Your task to perform on an android device: What is the news today? Image 0: 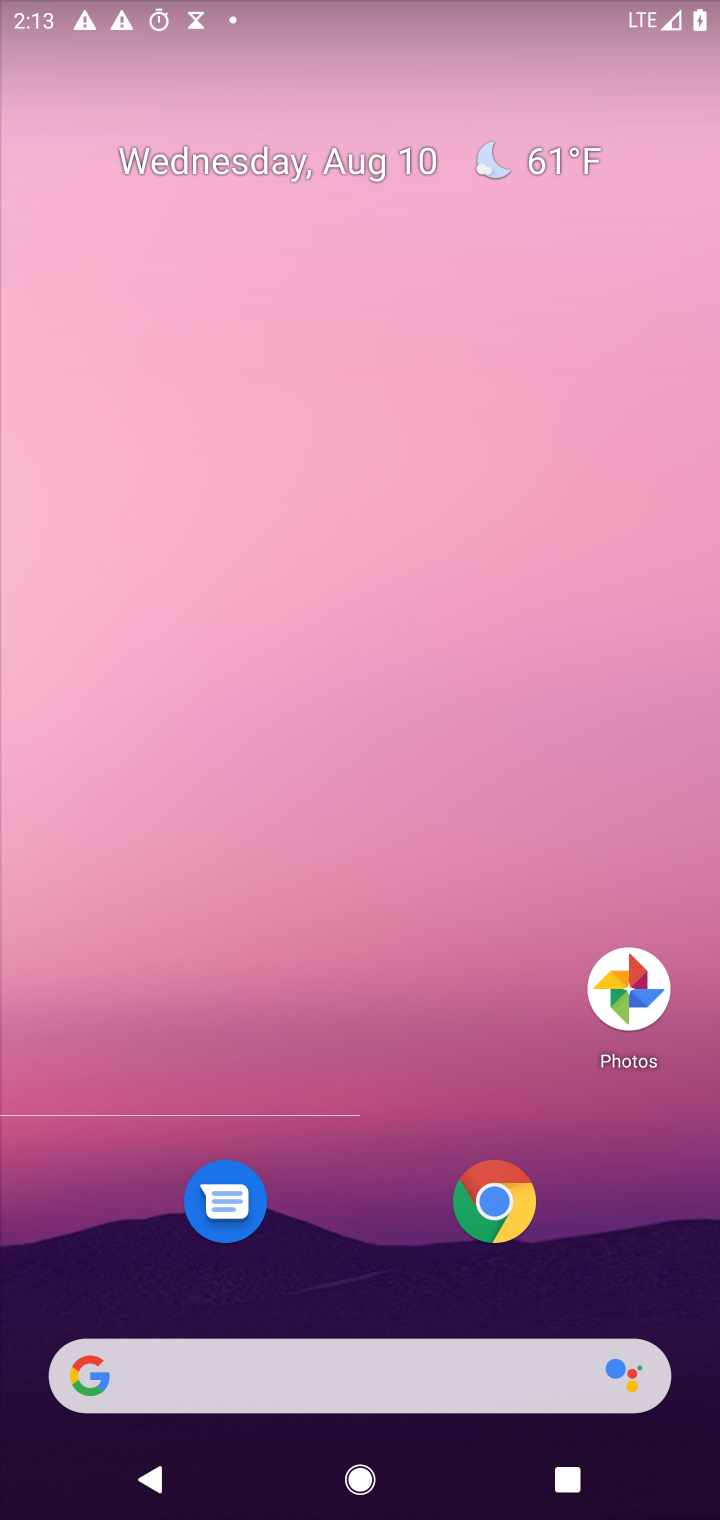
Step 0: drag from (404, 1250) to (341, 194)
Your task to perform on an android device: What is the news today? Image 1: 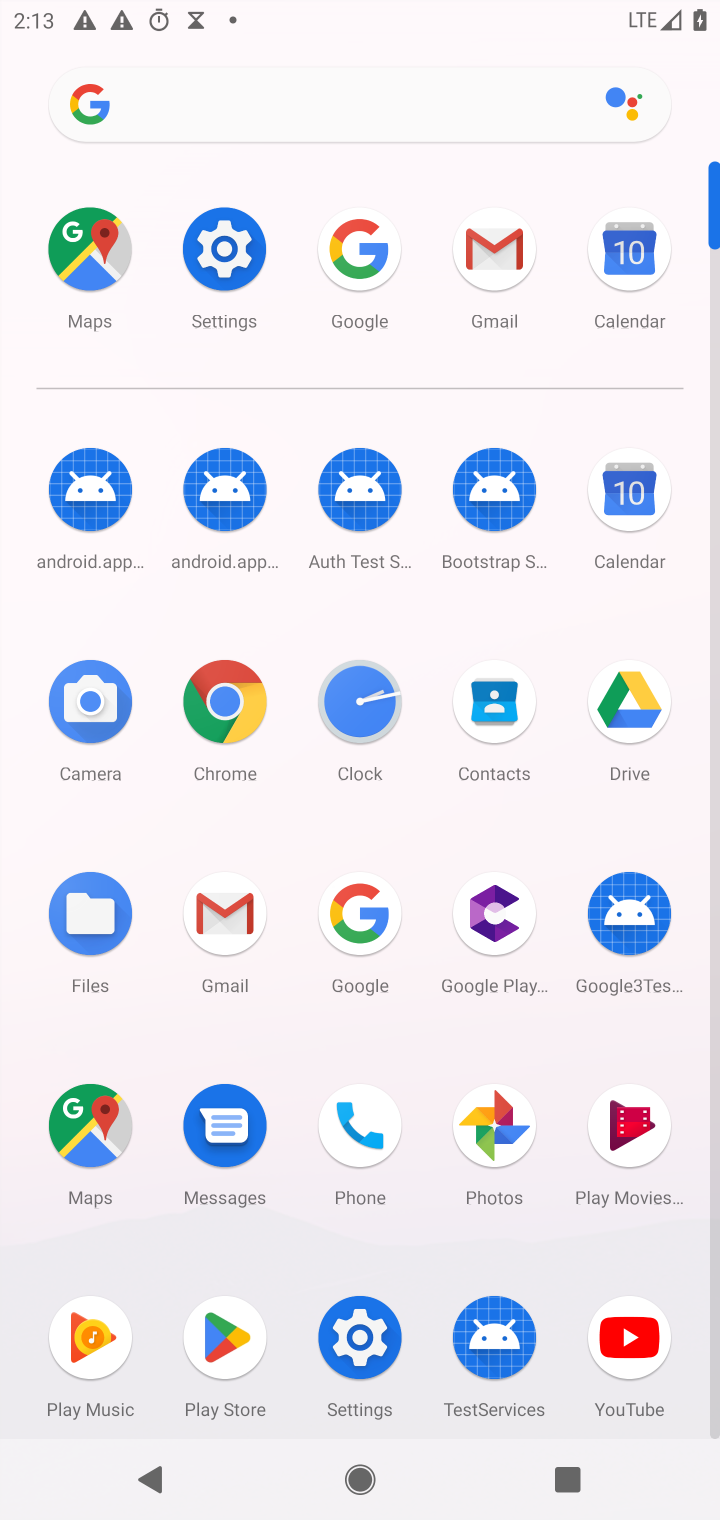
Step 1: click (369, 901)
Your task to perform on an android device: What is the news today? Image 2: 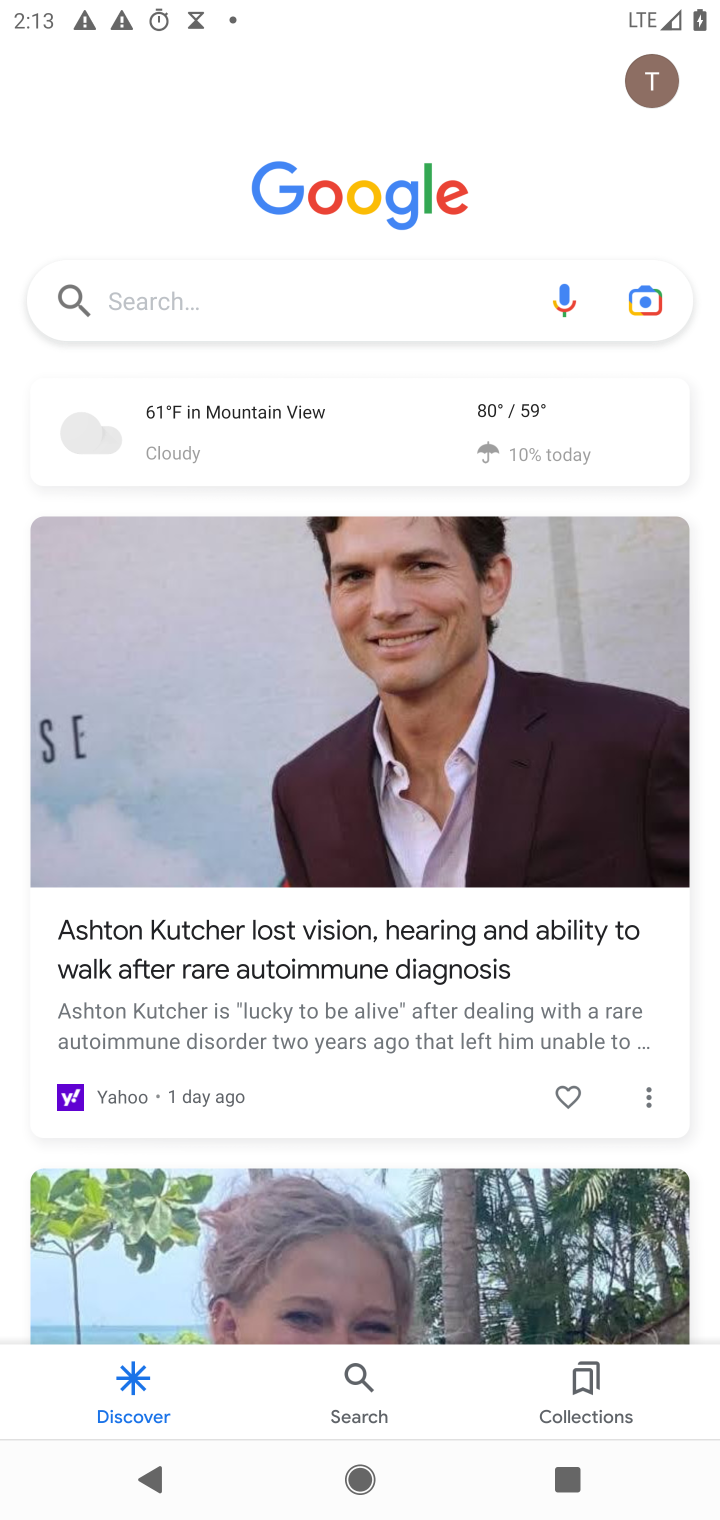
Step 2: click (283, 317)
Your task to perform on an android device: What is the news today? Image 3: 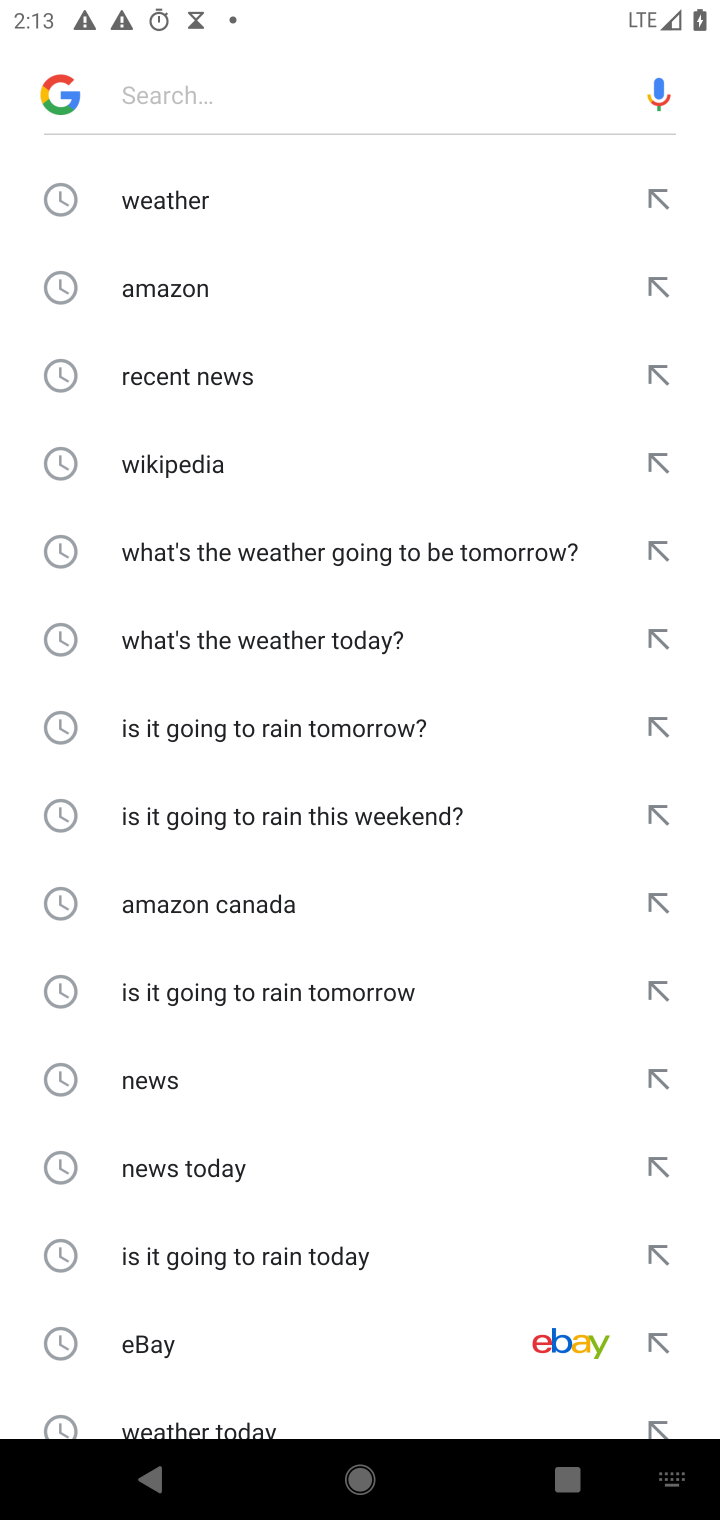
Step 3: click (190, 1178)
Your task to perform on an android device: What is the news today? Image 4: 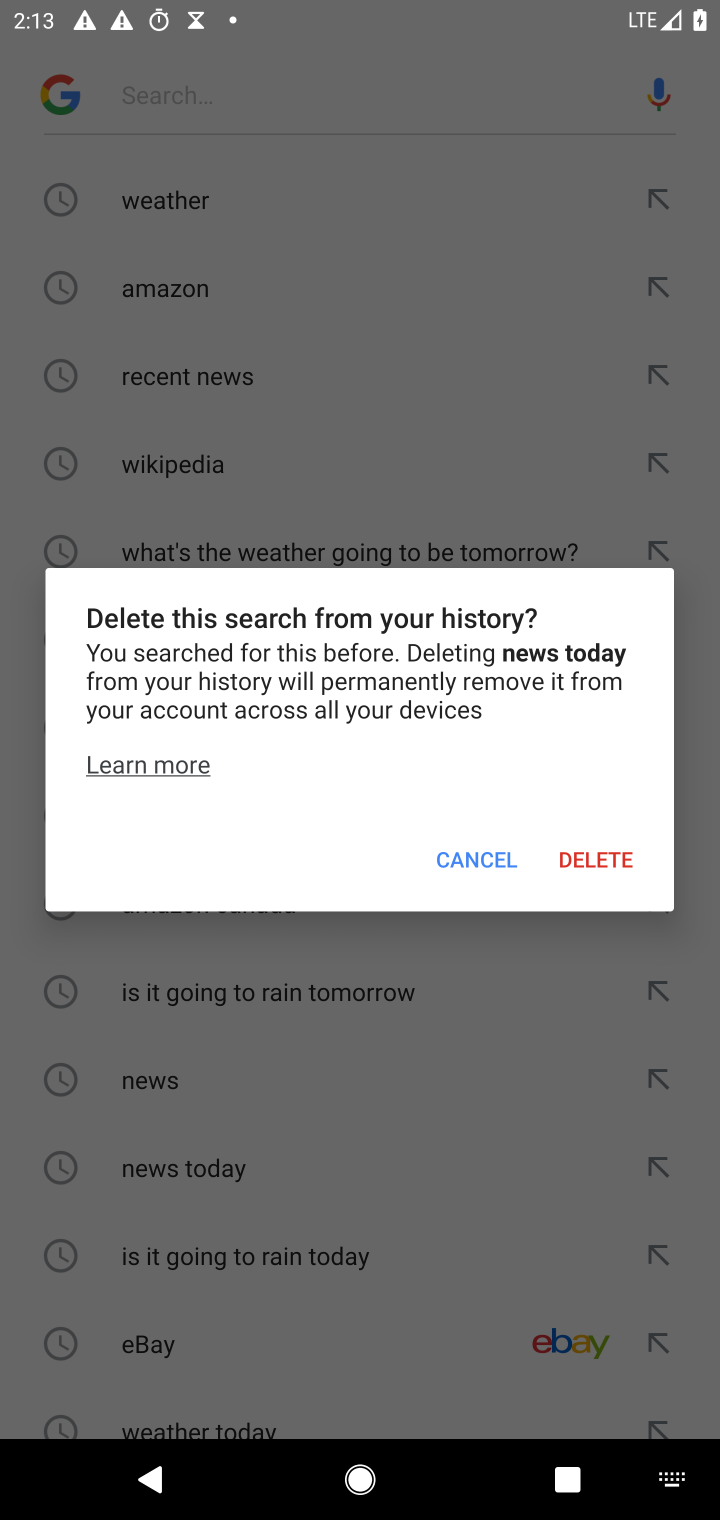
Step 4: click (474, 871)
Your task to perform on an android device: What is the news today? Image 5: 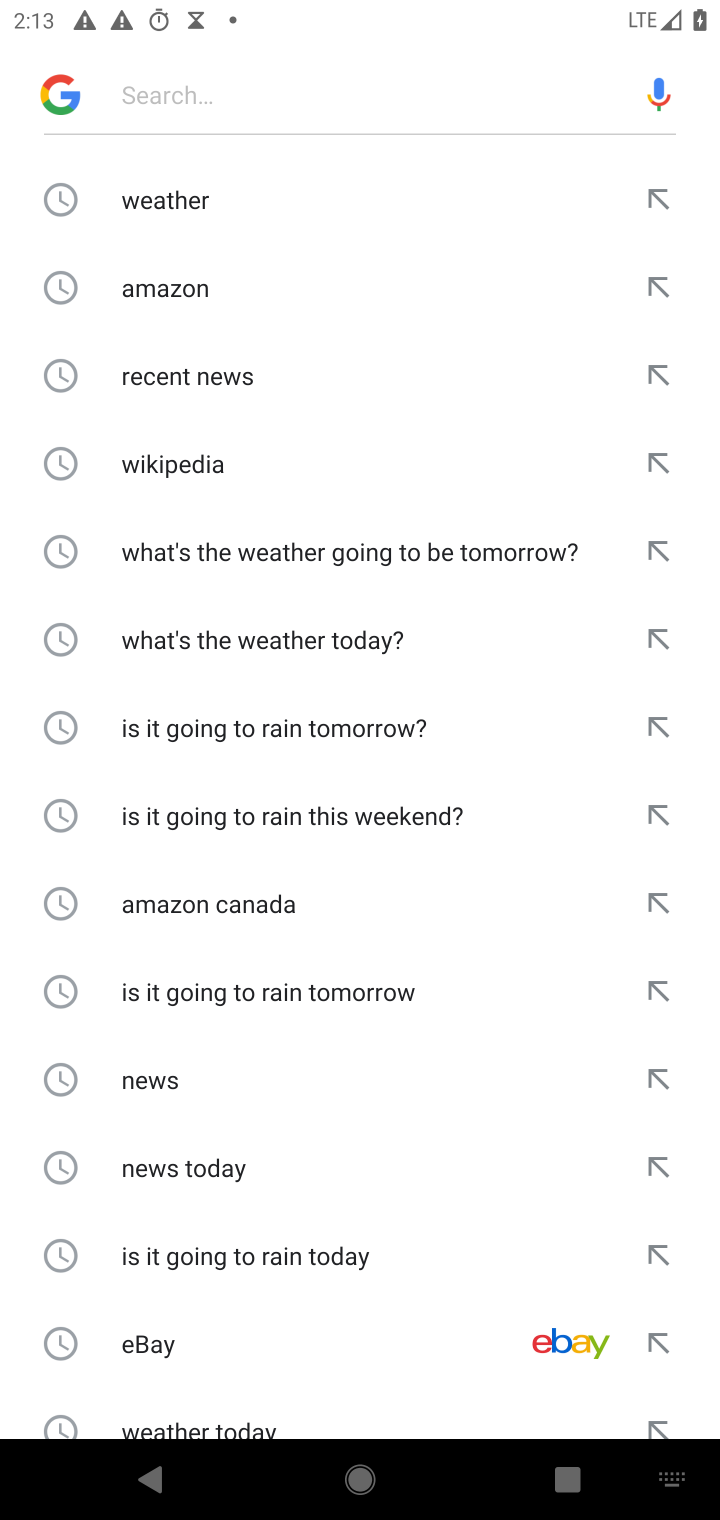
Step 5: type "news today?"
Your task to perform on an android device: What is the news today? Image 6: 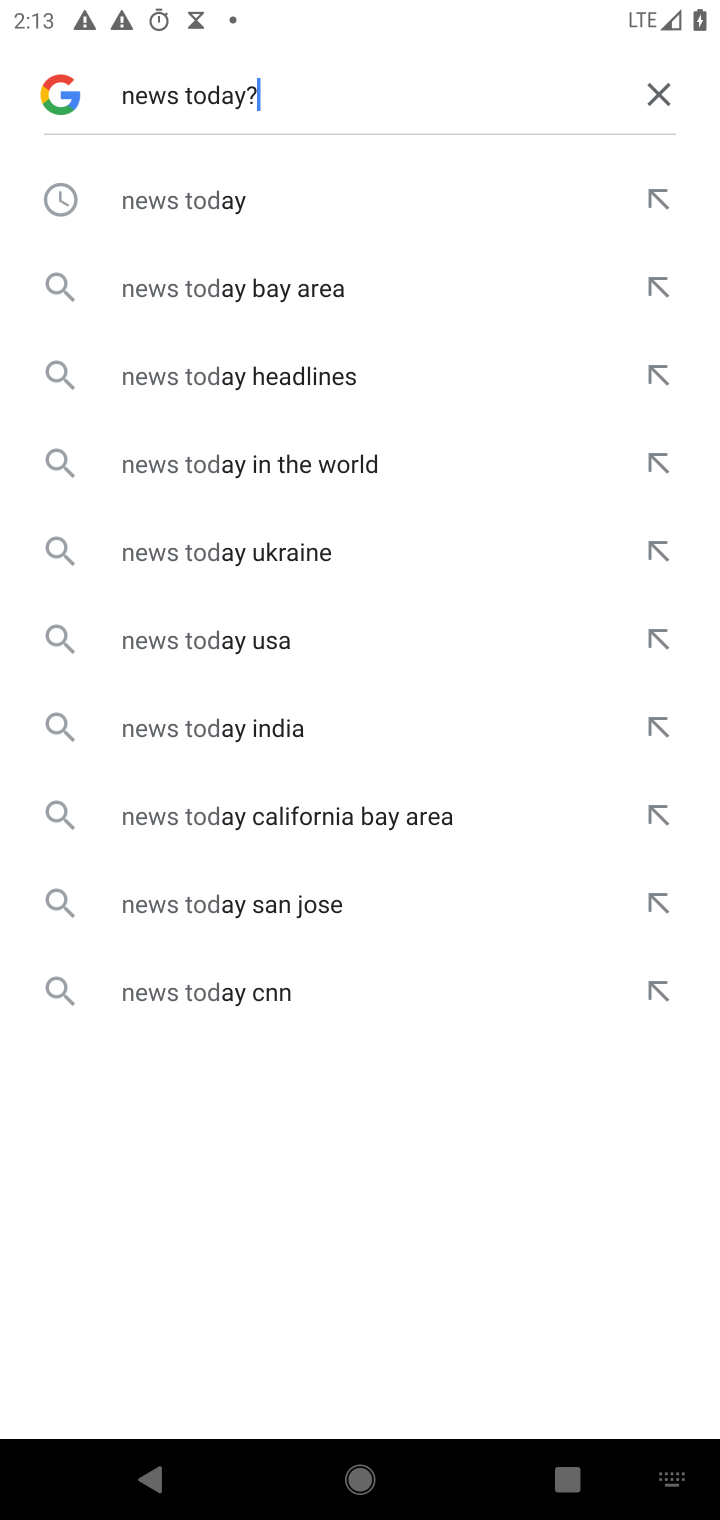
Step 6: press enter
Your task to perform on an android device: What is the news today? Image 7: 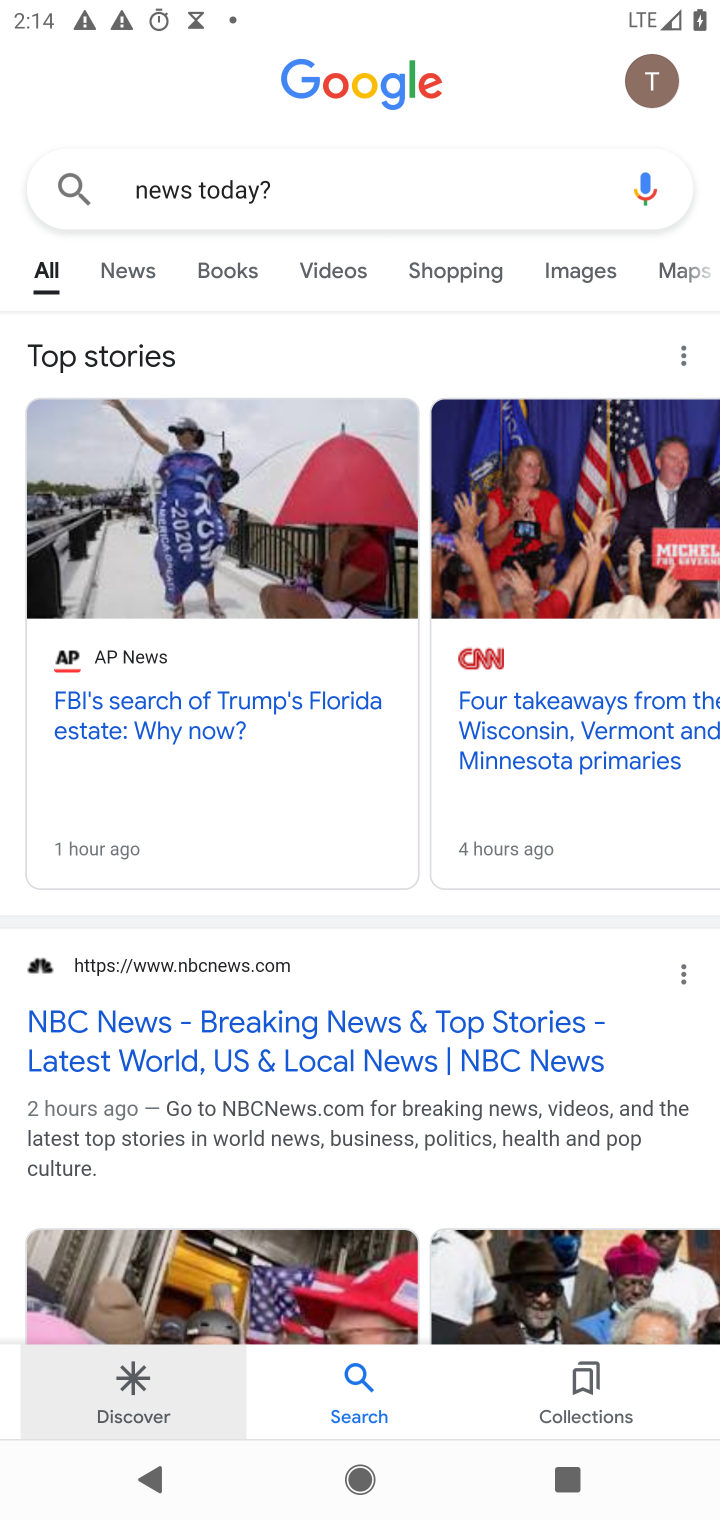
Step 7: task complete